Your task to perform on an android device: check android version Image 0: 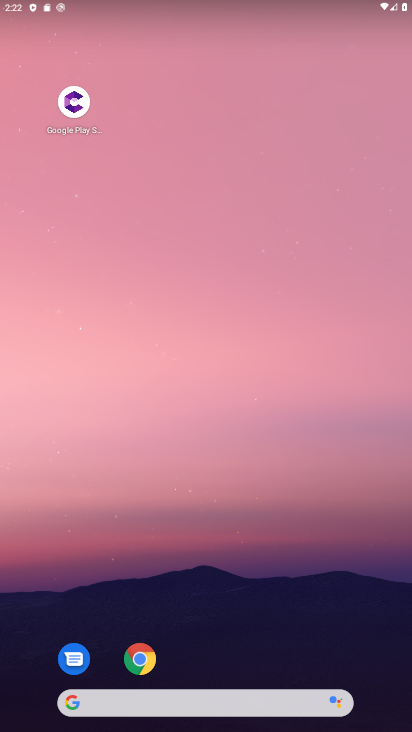
Step 0: drag from (220, 620) to (187, 70)
Your task to perform on an android device: check android version Image 1: 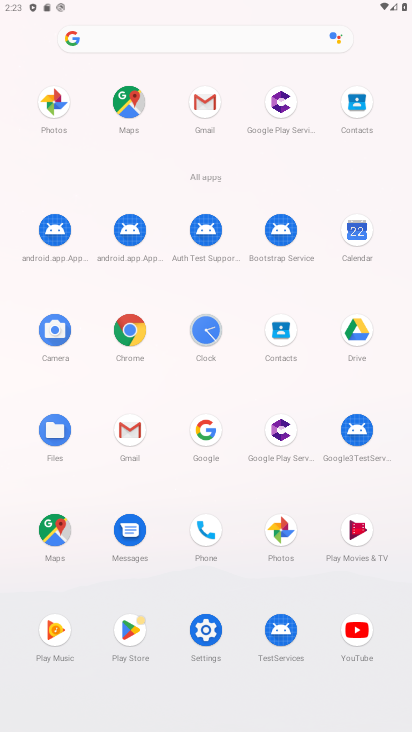
Step 1: click (204, 634)
Your task to perform on an android device: check android version Image 2: 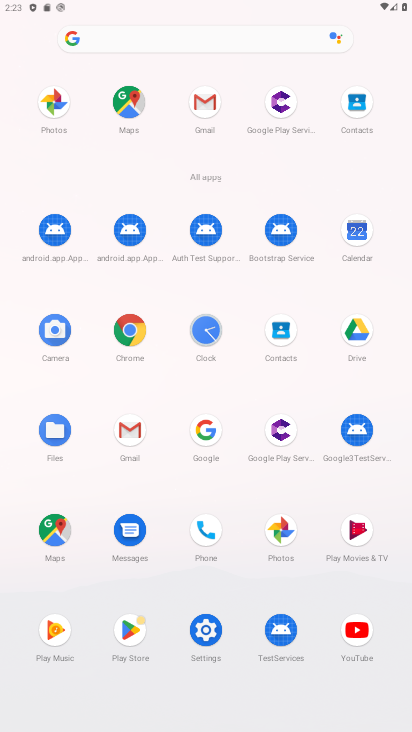
Step 2: click (199, 625)
Your task to perform on an android device: check android version Image 3: 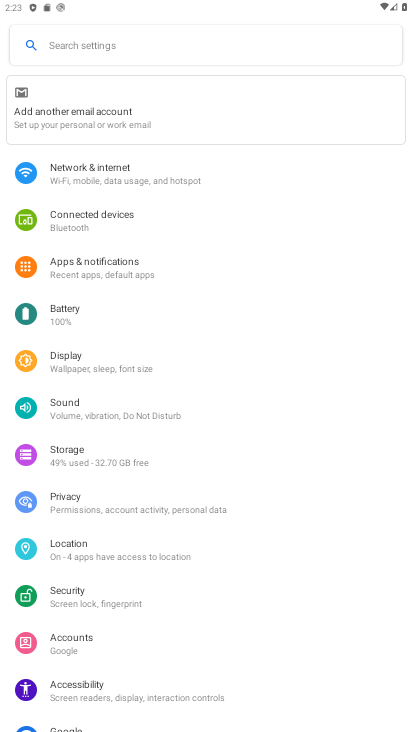
Step 3: drag from (250, 632) to (251, 233)
Your task to perform on an android device: check android version Image 4: 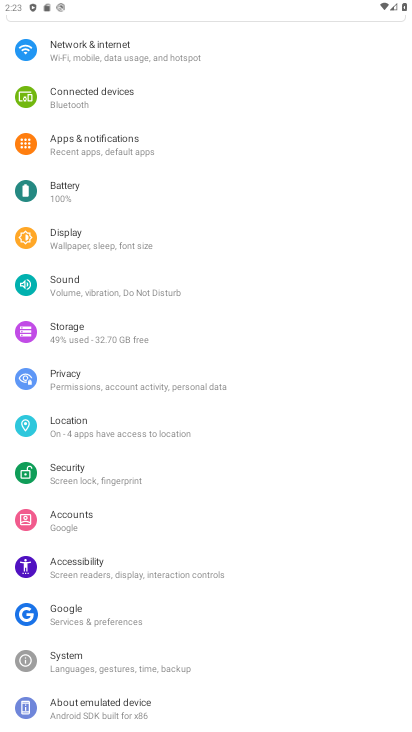
Step 4: click (93, 698)
Your task to perform on an android device: check android version Image 5: 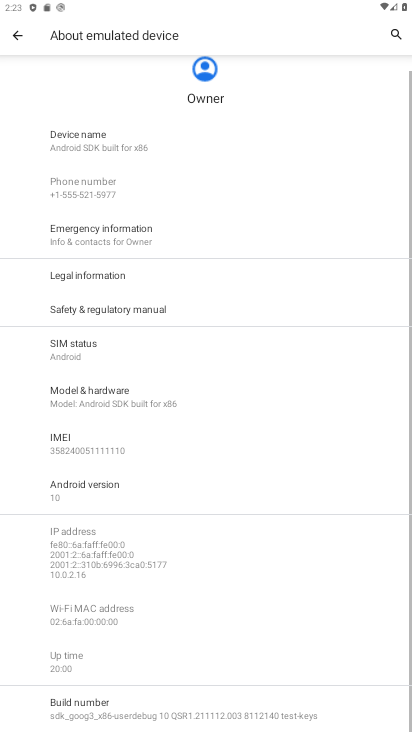
Step 5: task complete